Your task to perform on an android device: Go to Yahoo.com Image 0: 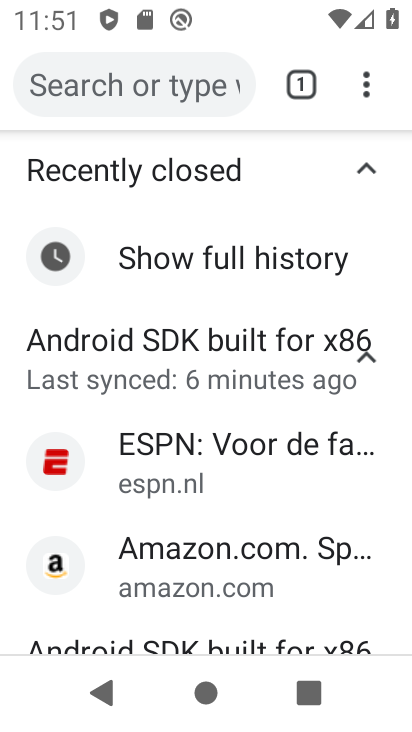
Step 0: click (149, 95)
Your task to perform on an android device: Go to Yahoo.com Image 1: 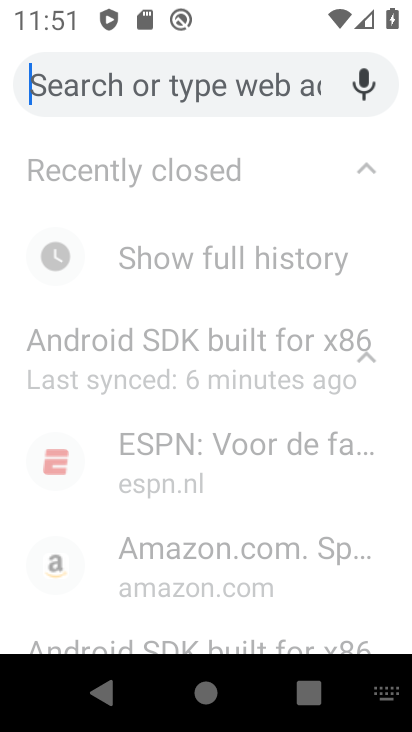
Step 1: type "yahoo.com"
Your task to perform on an android device: Go to Yahoo.com Image 2: 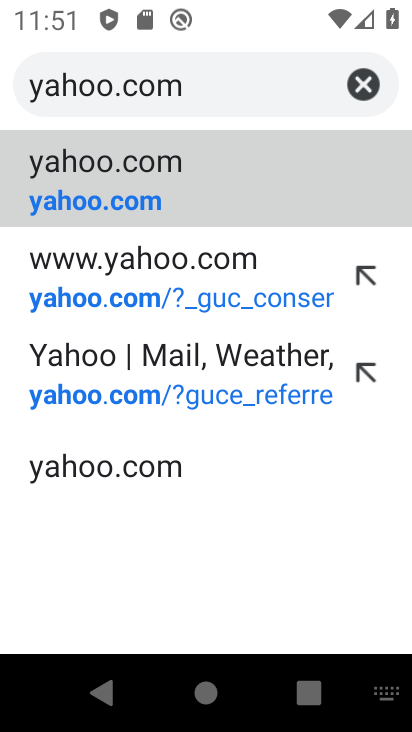
Step 2: click (145, 207)
Your task to perform on an android device: Go to Yahoo.com Image 3: 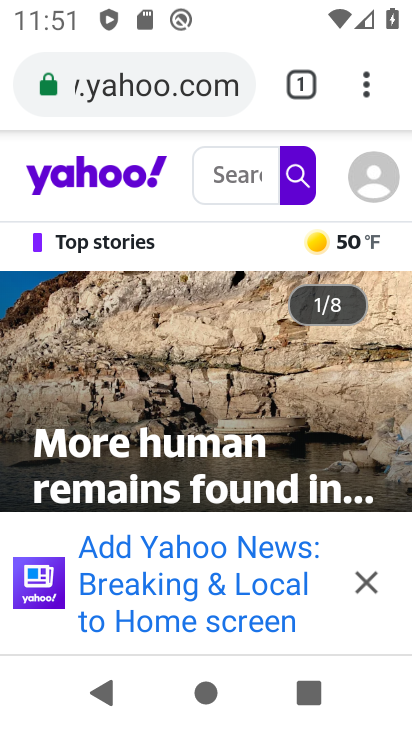
Step 3: task complete